Your task to perform on an android device: turn on bluetooth scan Image 0: 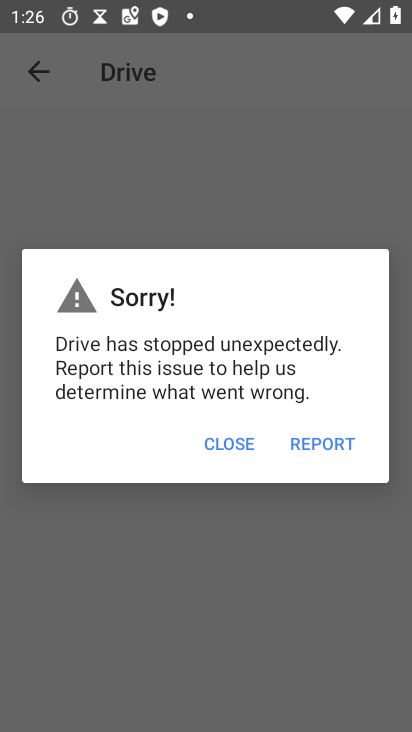
Step 0: press home button
Your task to perform on an android device: turn on bluetooth scan Image 1: 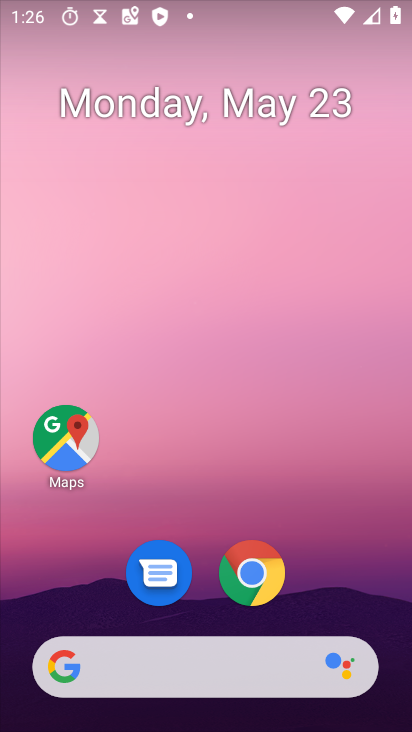
Step 1: drag from (169, 665) to (295, 201)
Your task to perform on an android device: turn on bluetooth scan Image 2: 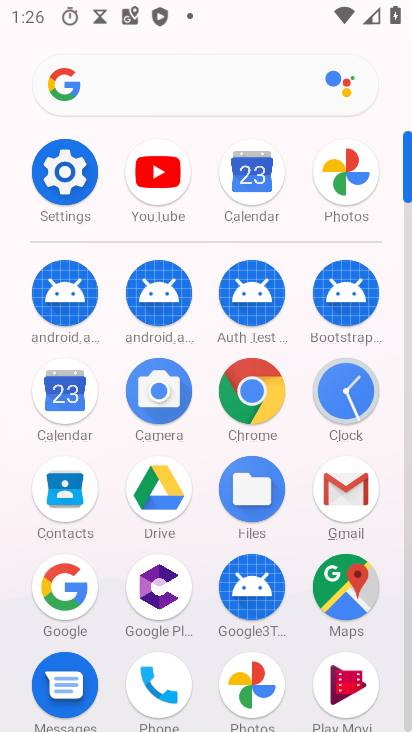
Step 2: click (79, 176)
Your task to perform on an android device: turn on bluetooth scan Image 3: 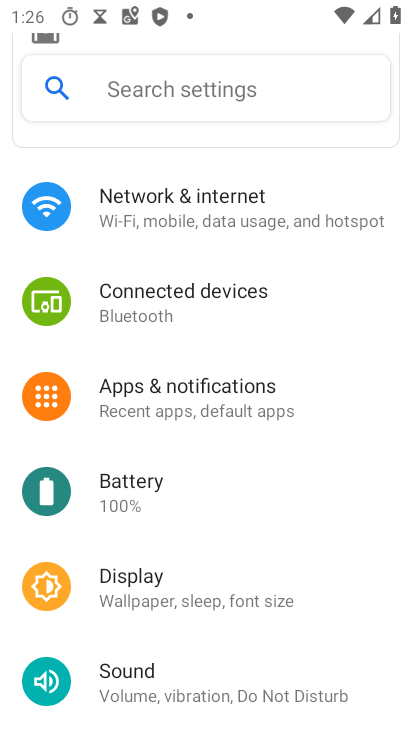
Step 3: drag from (279, 560) to (402, 150)
Your task to perform on an android device: turn on bluetooth scan Image 4: 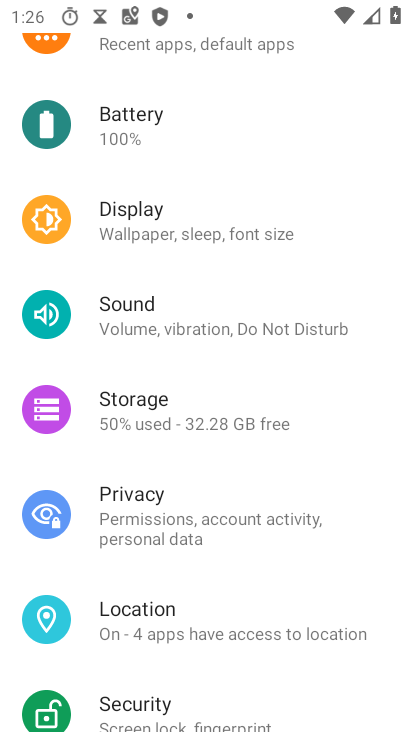
Step 4: click (164, 618)
Your task to perform on an android device: turn on bluetooth scan Image 5: 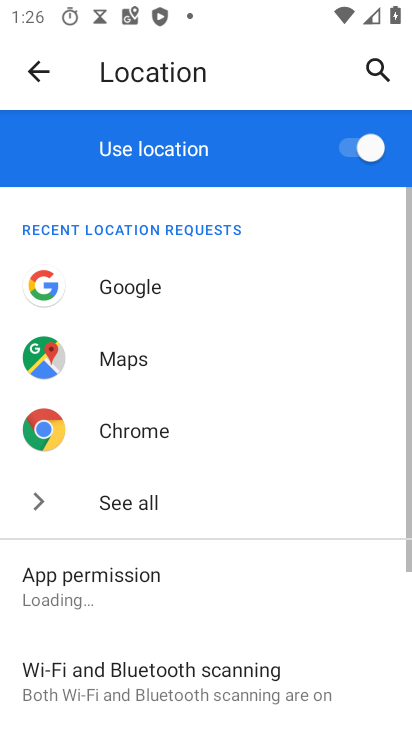
Step 5: drag from (192, 637) to (311, 249)
Your task to perform on an android device: turn on bluetooth scan Image 6: 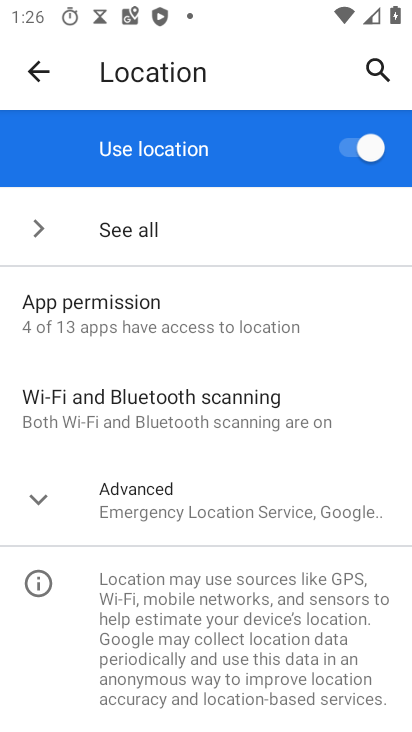
Step 6: click (195, 407)
Your task to perform on an android device: turn on bluetooth scan Image 7: 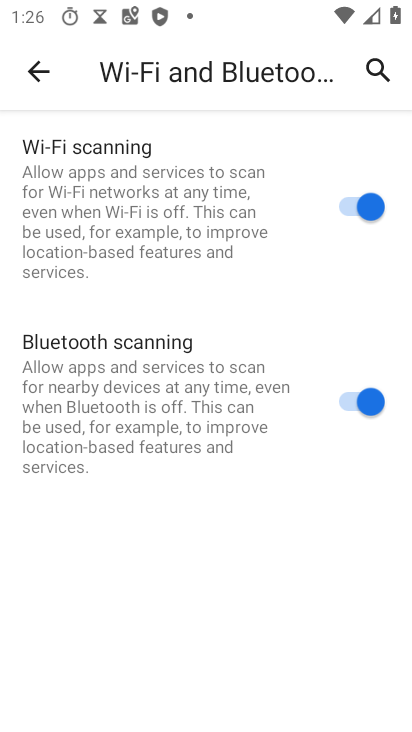
Step 7: task complete